Your task to perform on an android device: When is my next meeting? Image 0: 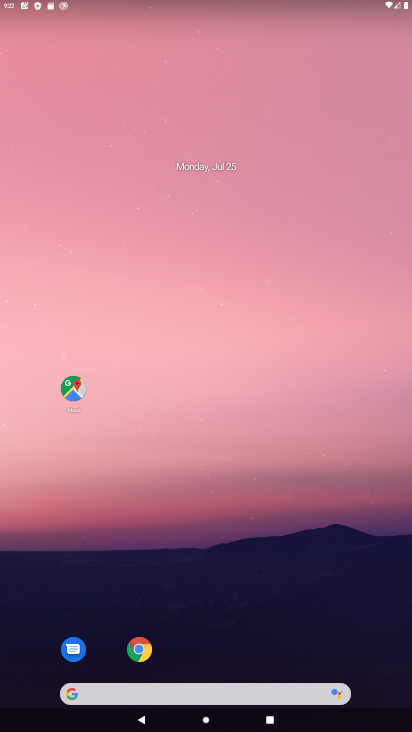
Step 0: drag from (311, 581) to (89, 47)
Your task to perform on an android device: When is my next meeting? Image 1: 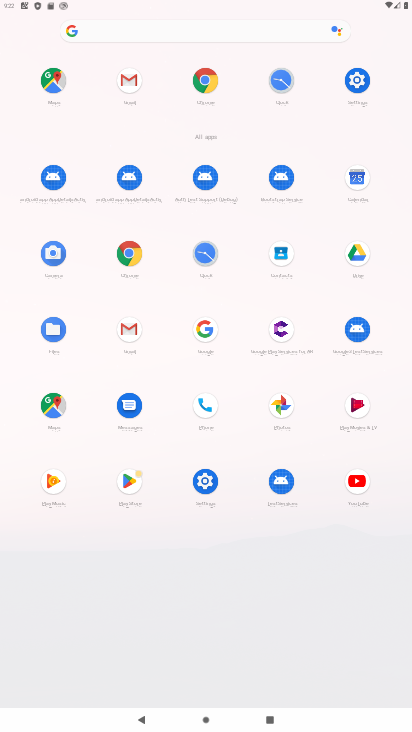
Step 1: click (346, 178)
Your task to perform on an android device: When is my next meeting? Image 2: 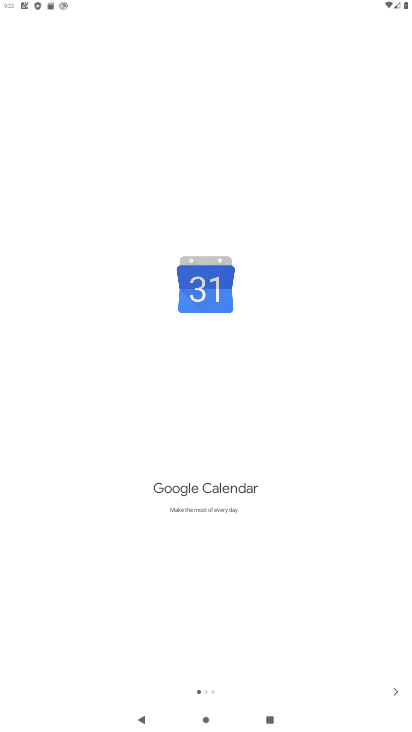
Step 2: click (401, 690)
Your task to perform on an android device: When is my next meeting? Image 3: 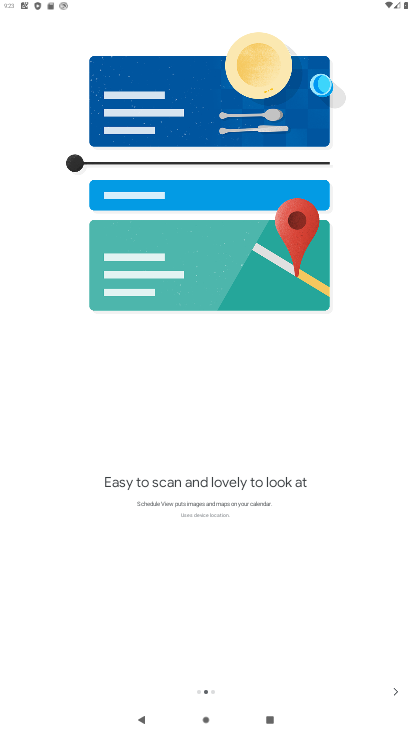
Step 3: click (384, 697)
Your task to perform on an android device: When is my next meeting? Image 4: 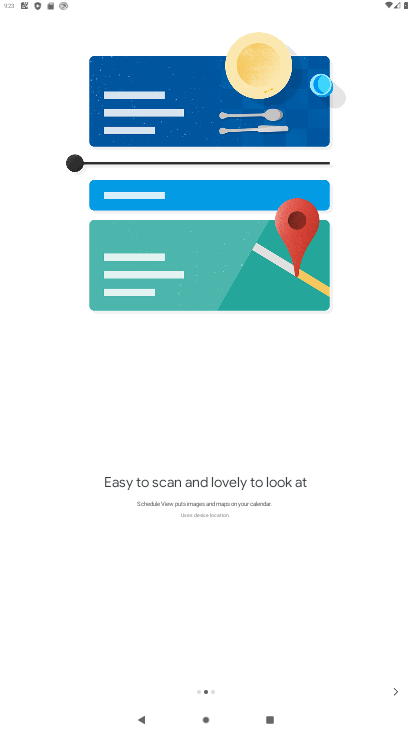
Step 4: click (391, 689)
Your task to perform on an android device: When is my next meeting? Image 5: 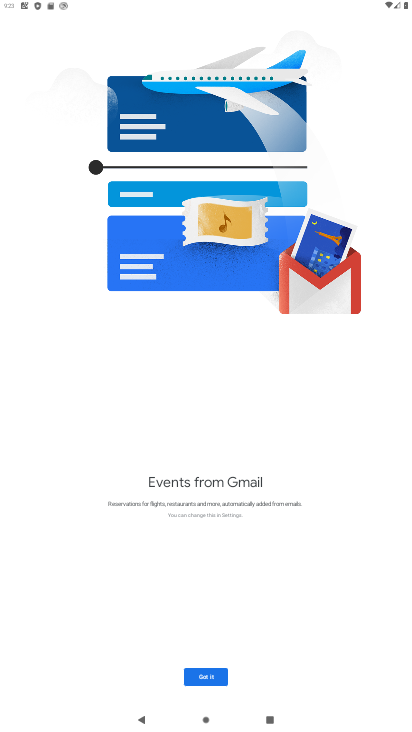
Step 5: click (211, 672)
Your task to perform on an android device: When is my next meeting? Image 6: 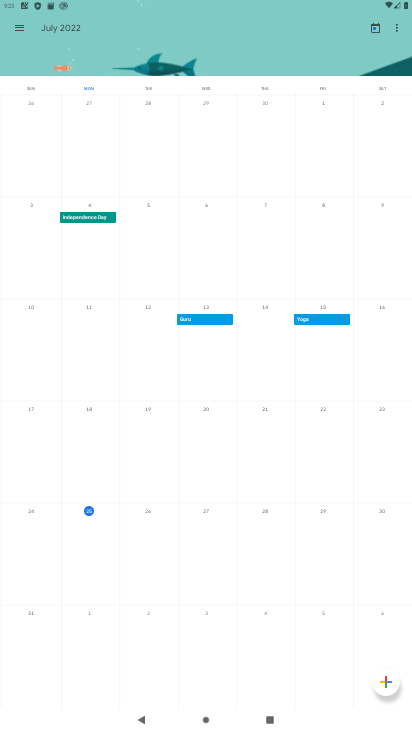
Step 6: click (84, 507)
Your task to perform on an android device: When is my next meeting? Image 7: 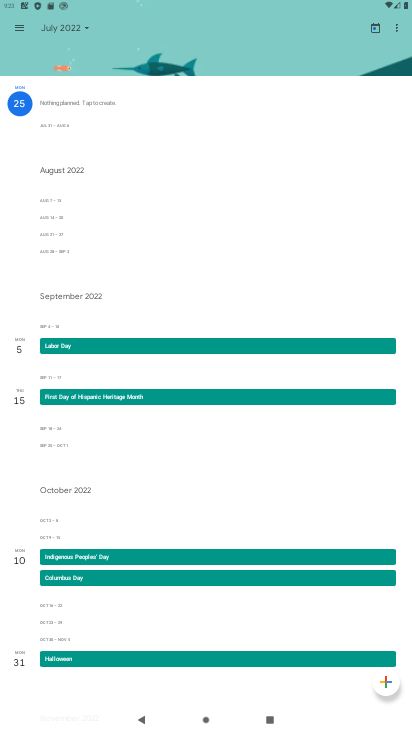
Step 7: task complete